Your task to perform on an android device: Do I have any events this weekend? Image 0: 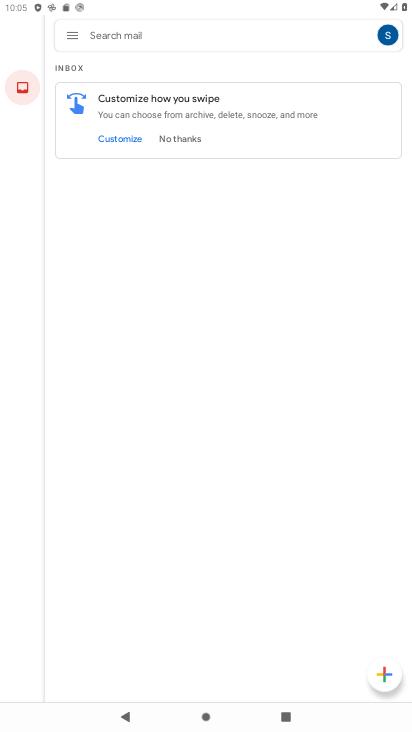
Step 0: press home button
Your task to perform on an android device: Do I have any events this weekend? Image 1: 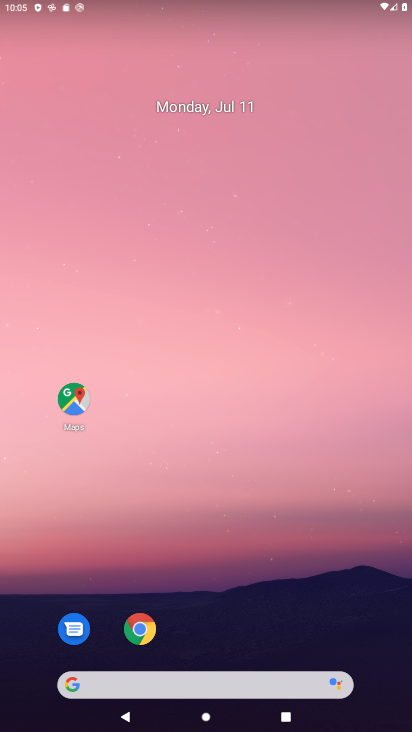
Step 1: drag from (252, 606) to (194, 135)
Your task to perform on an android device: Do I have any events this weekend? Image 2: 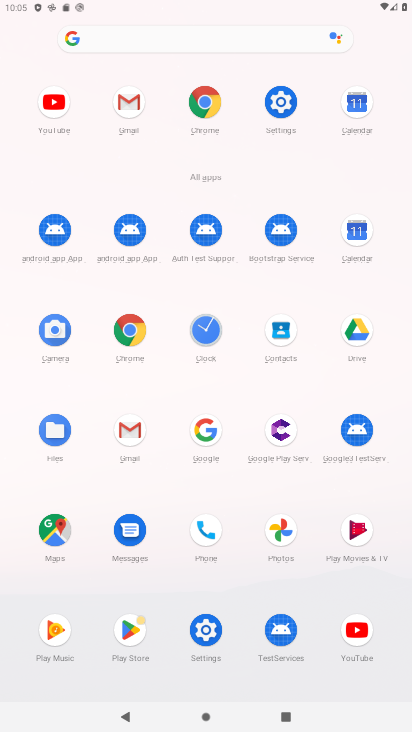
Step 2: click (364, 128)
Your task to perform on an android device: Do I have any events this weekend? Image 3: 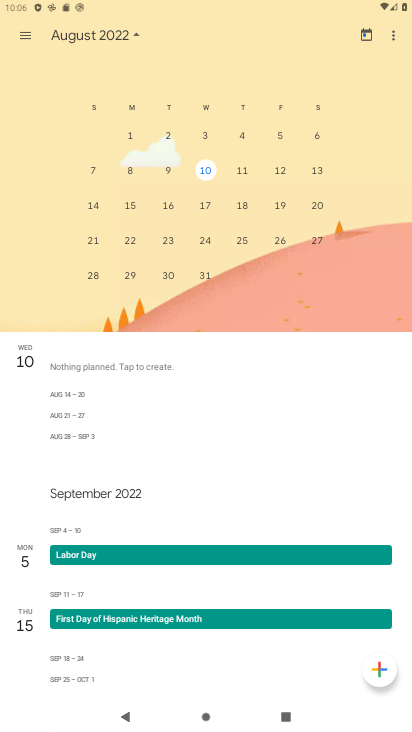
Step 3: drag from (81, 147) to (400, 142)
Your task to perform on an android device: Do I have any events this weekend? Image 4: 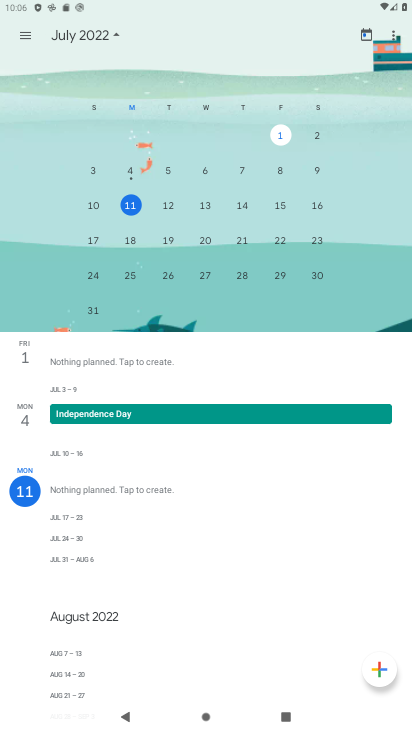
Step 4: click (208, 253)
Your task to perform on an android device: Do I have any events this weekend? Image 5: 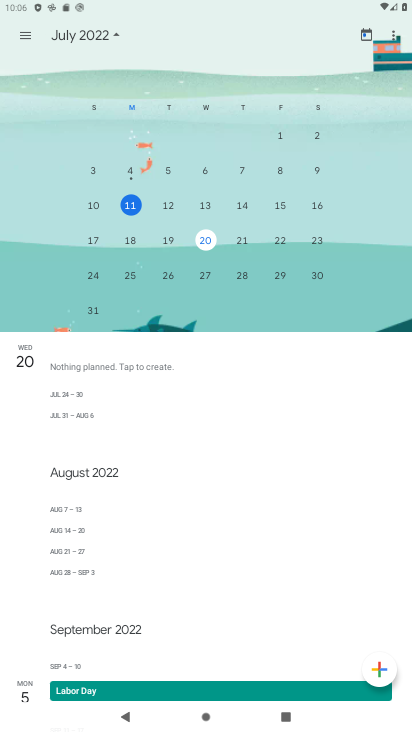
Step 5: click (246, 188)
Your task to perform on an android device: Do I have any events this weekend? Image 6: 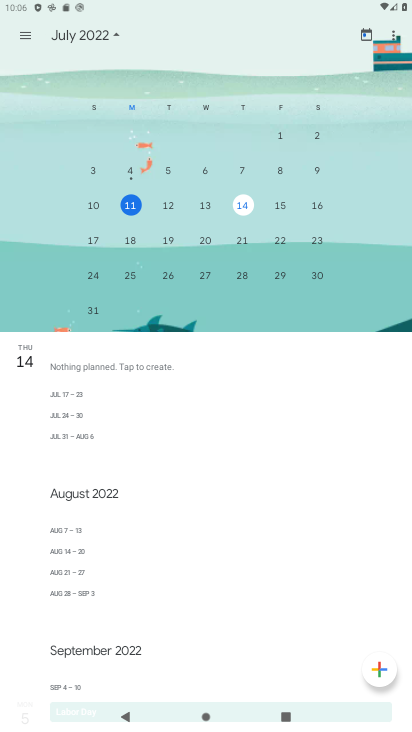
Step 6: task complete